Your task to perform on an android device: Turn on the flashlight Image 0: 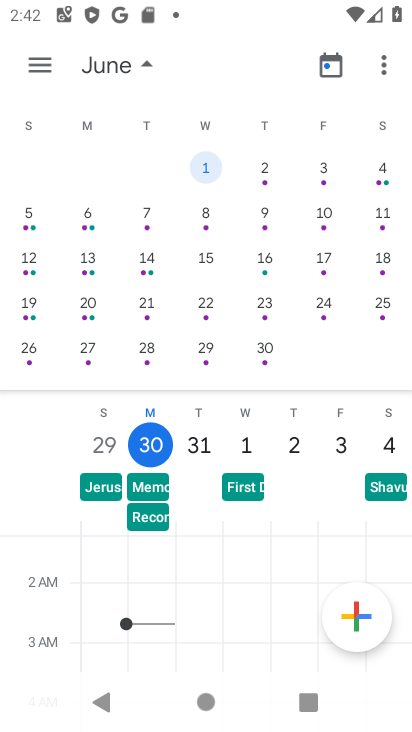
Step 0: task impossible